Your task to perform on an android device: Empty the shopping cart on ebay. Image 0: 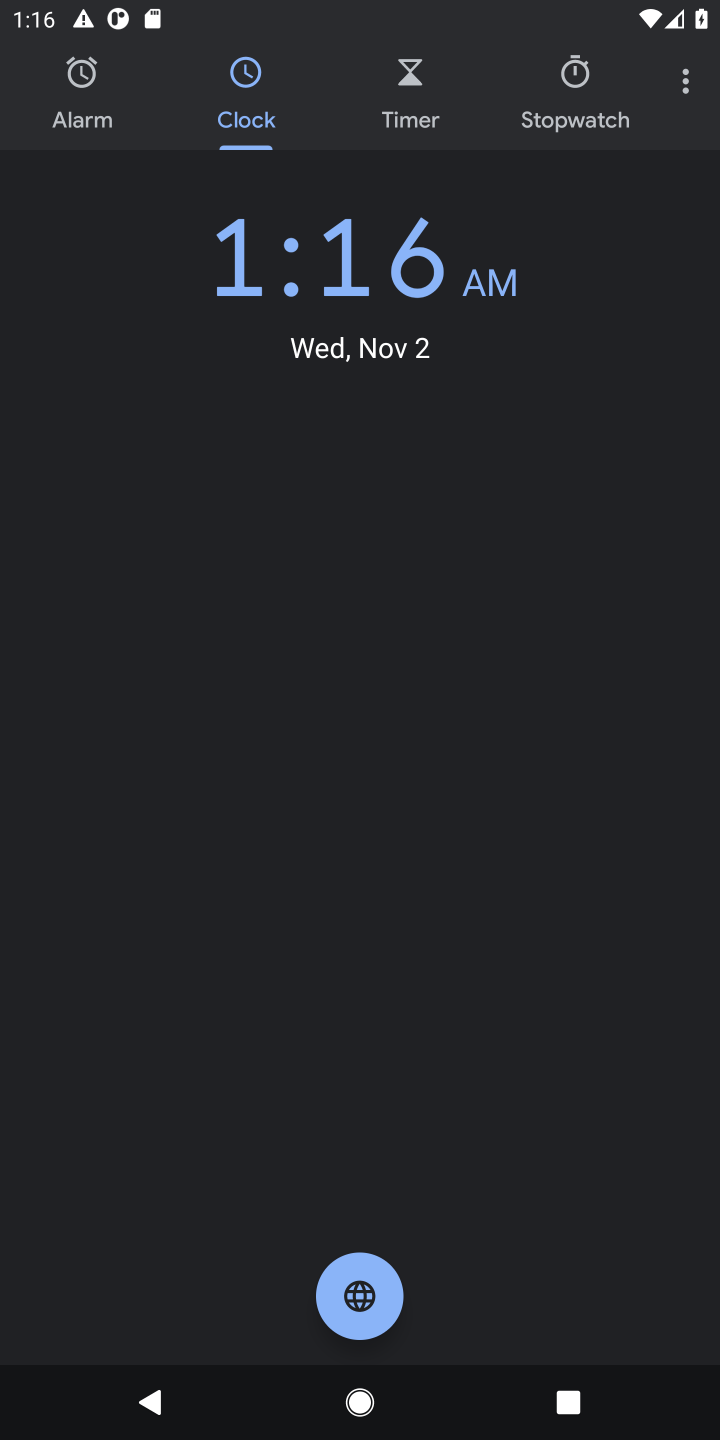
Step 0: press home button
Your task to perform on an android device: Empty the shopping cart on ebay. Image 1: 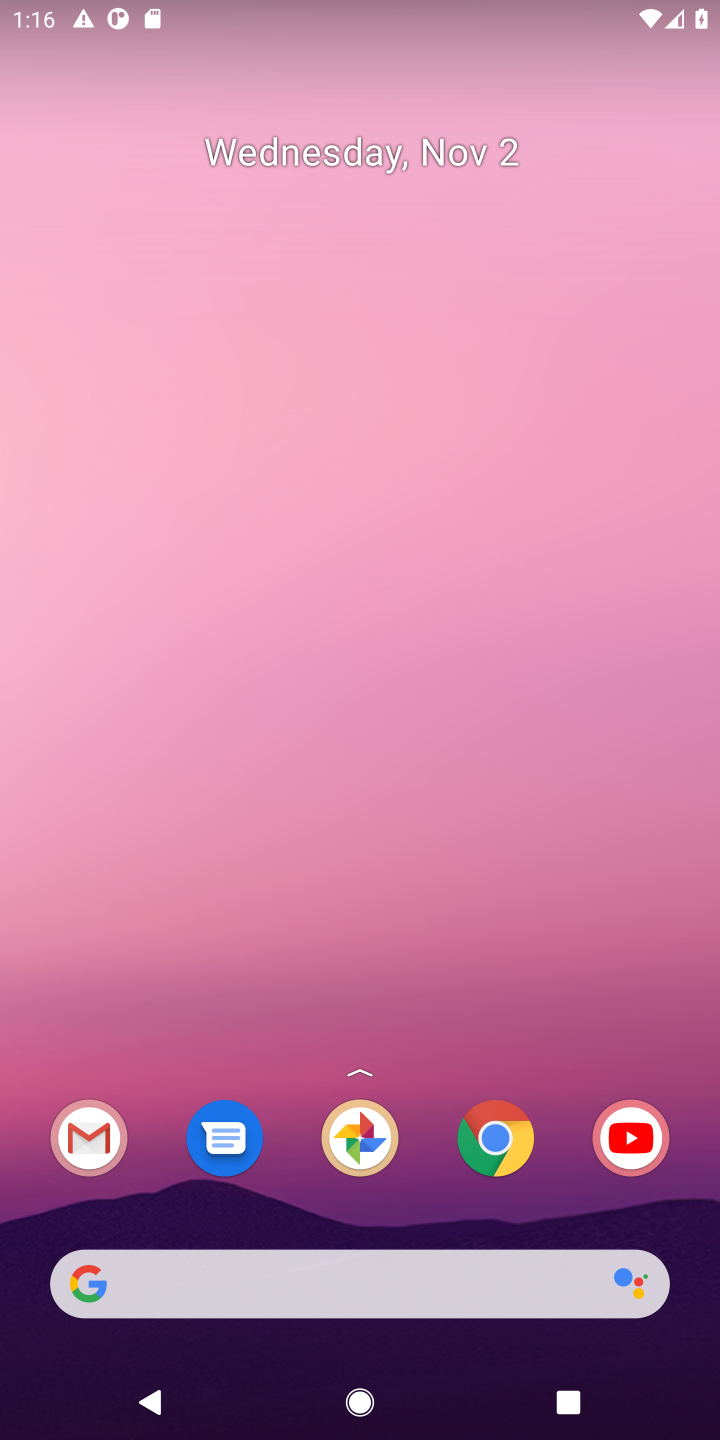
Step 1: click (481, 1119)
Your task to perform on an android device: Empty the shopping cart on ebay. Image 2: 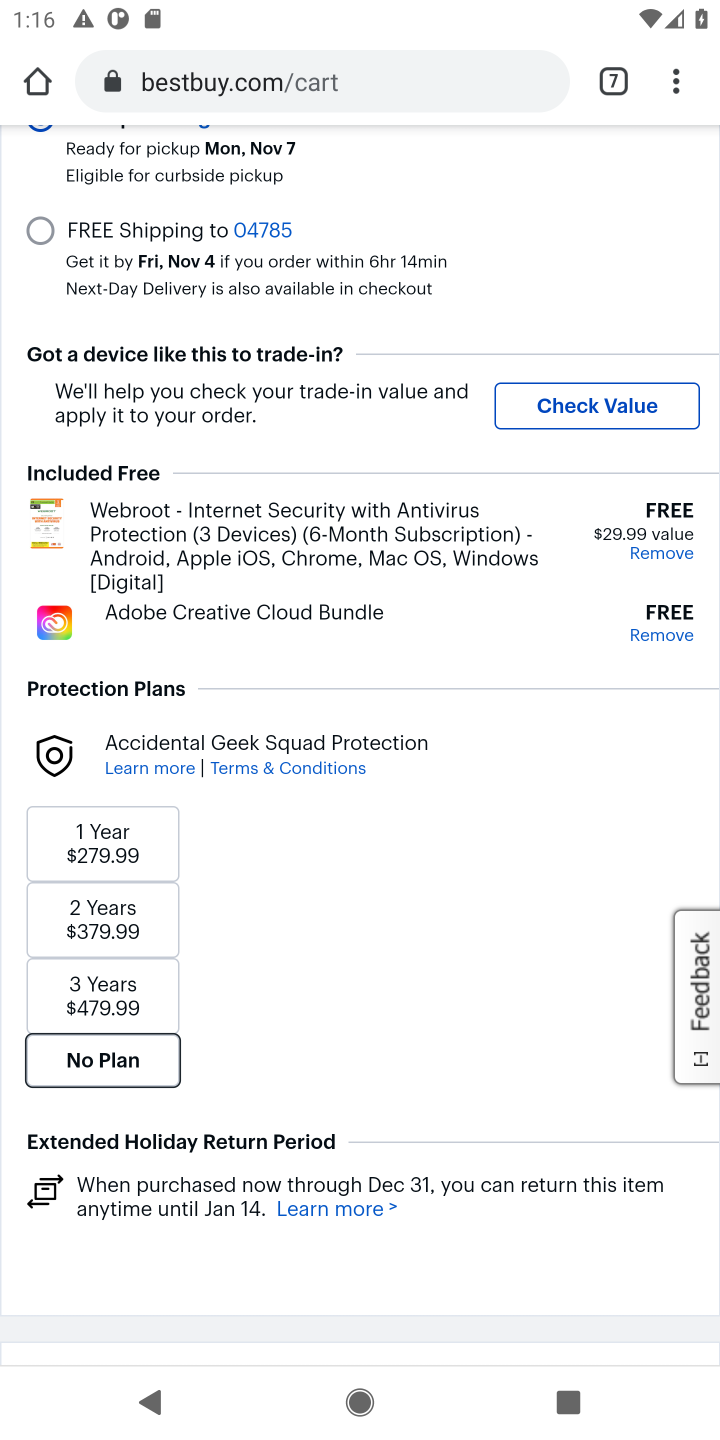
Step 2: click (610, 89)
Your task to perform on an android device: Empty the shopping cart on ebay. Image 3: 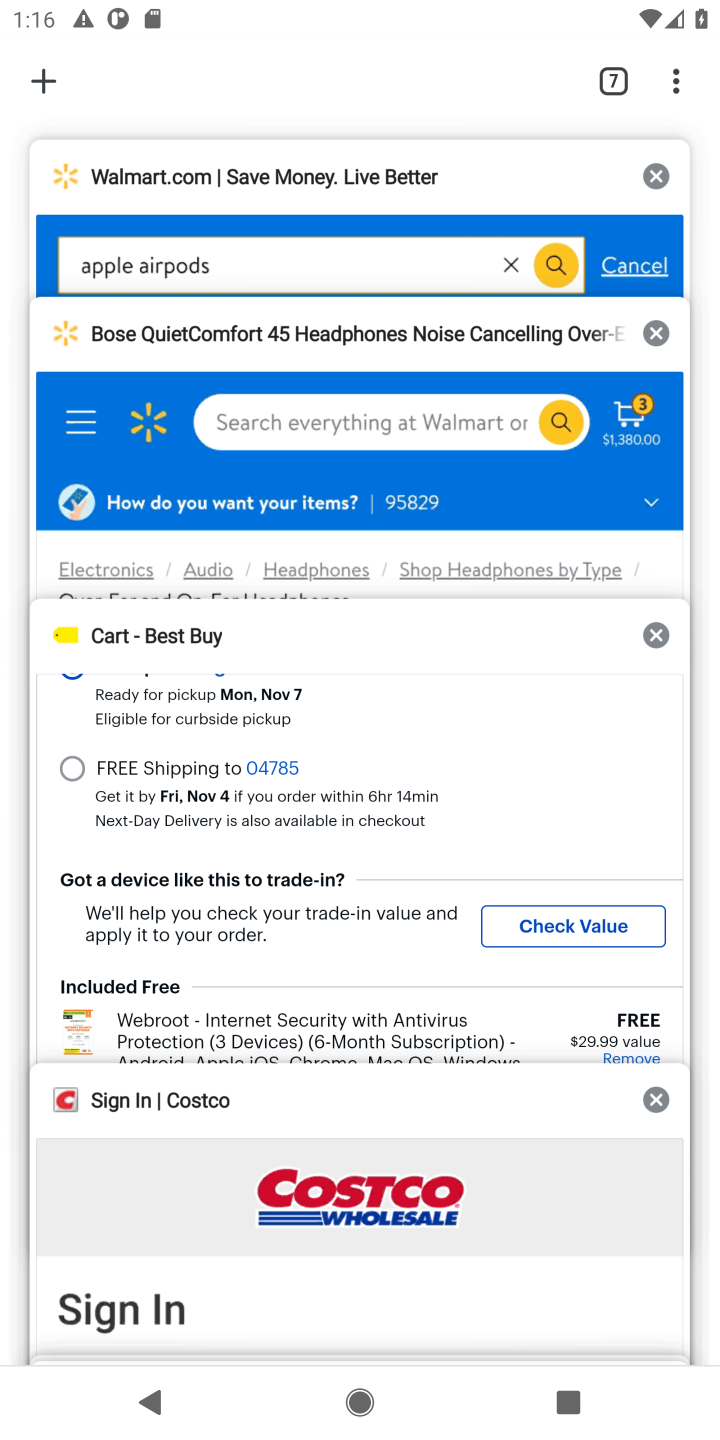
Step 3: drag from (263, 200) to (378, 563)
Your task to perform on an android device: Empty the shopping cart on ebay. Image 4: 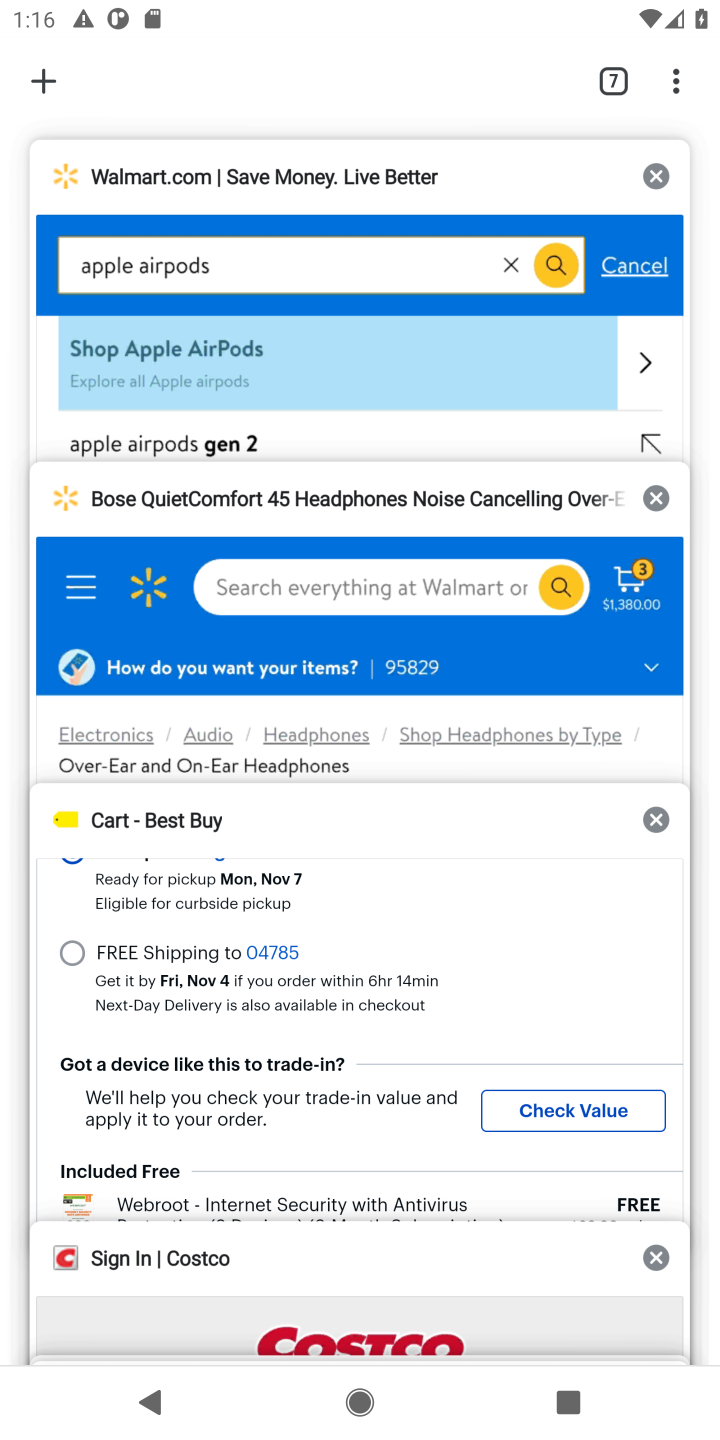
Step 4: click (651, 500)
Your task to perform on an android device: Empty the shopping cart on ebay. Image 5: 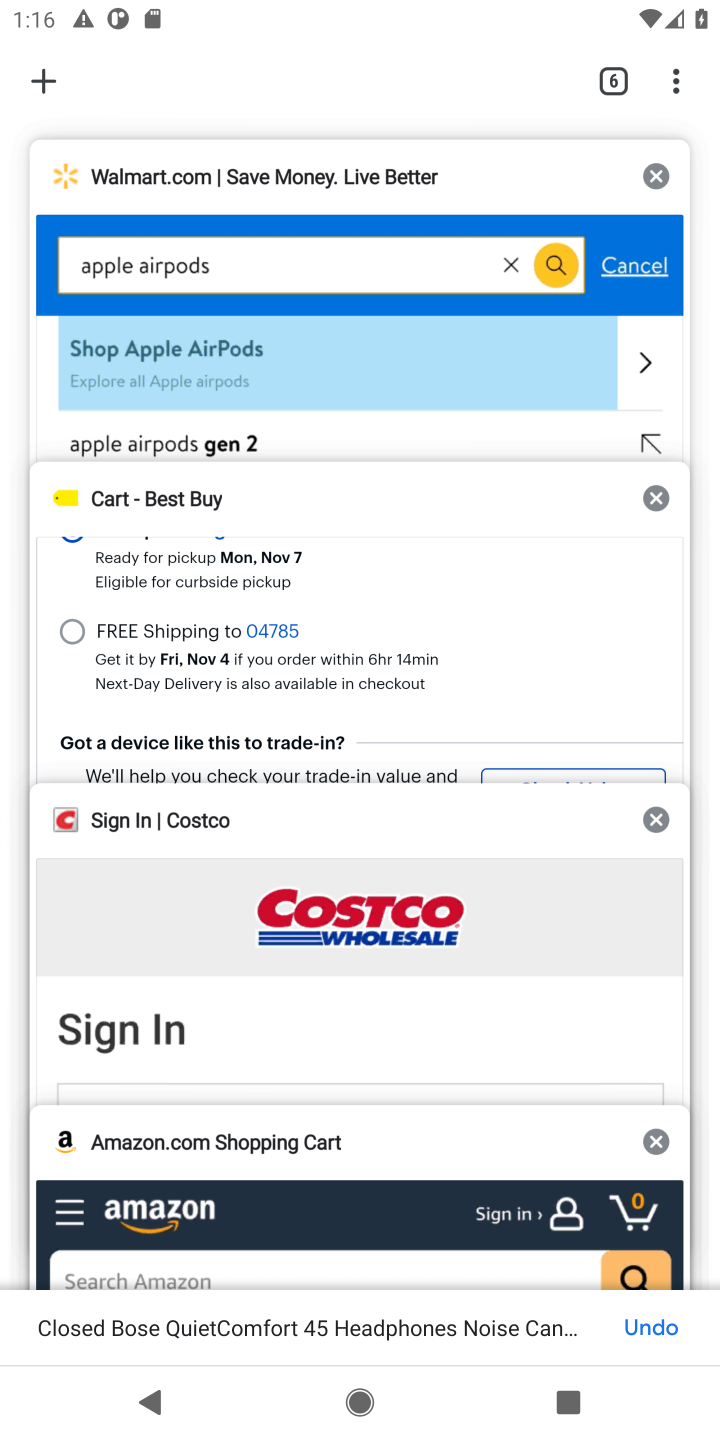
Step 5: drag from (310, 1272) to (305, 709)
Your task to perform on an android device: Empty the shopping cart on ebay. Image 6: 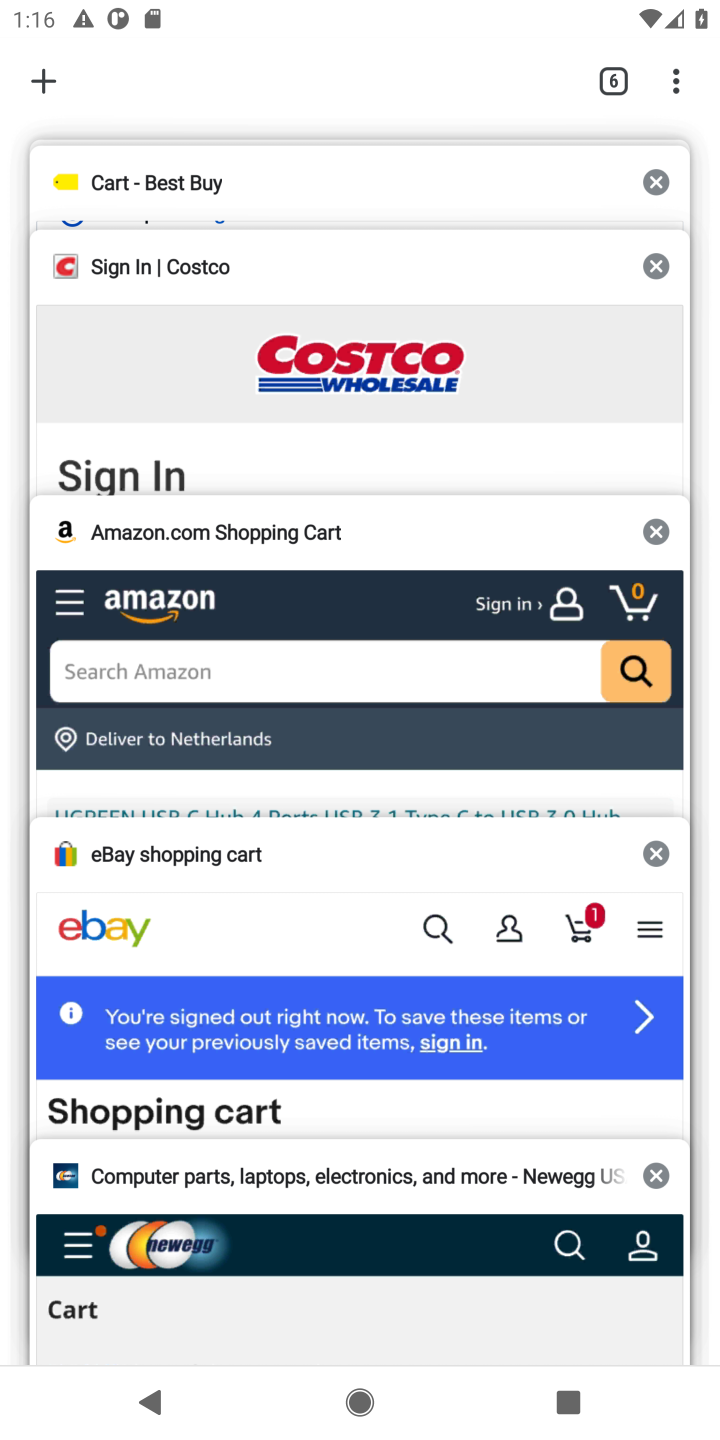
Step 6: click (322, 989)
Your task to perform on an android device: Empty the shopping cart on ebay. Image 7: 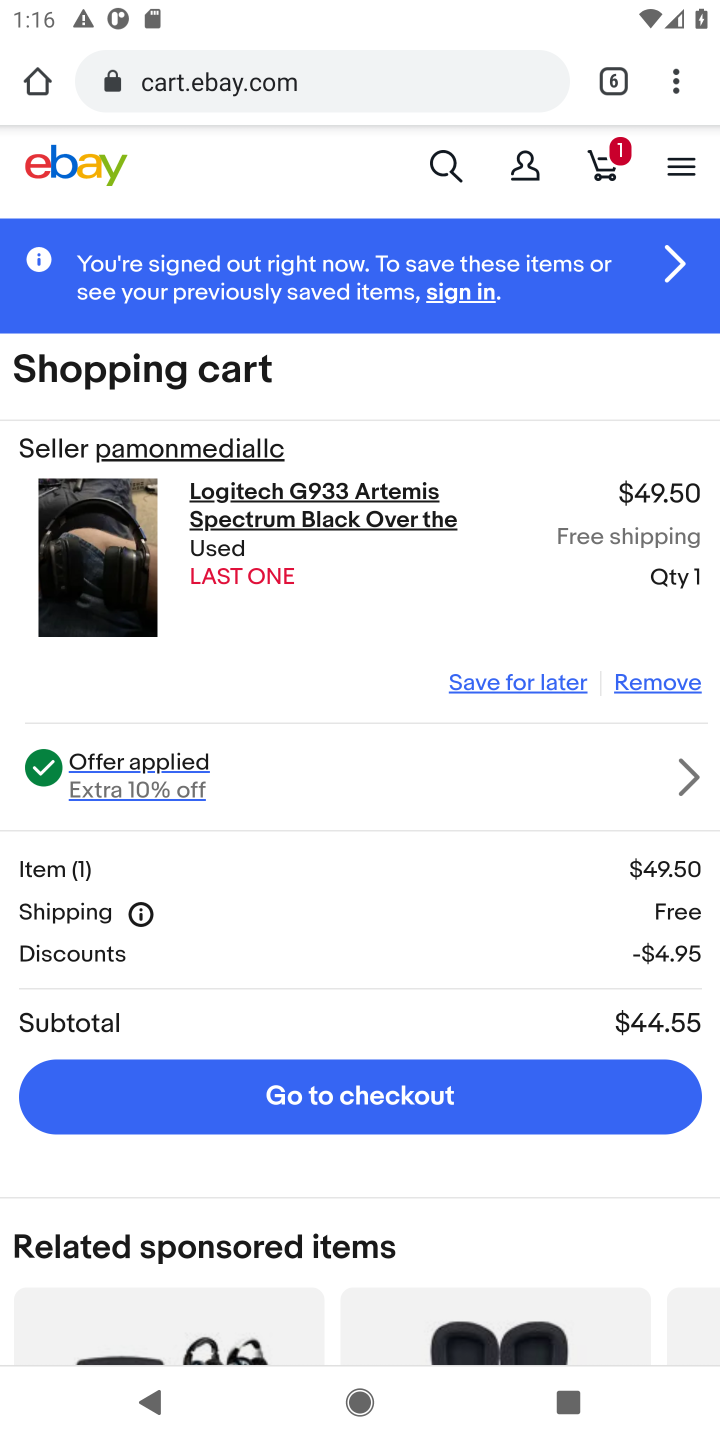
Step 7: click (629, 677)
Your task to perform on an android device: Empty the shopping cart on ebay. Image 8: 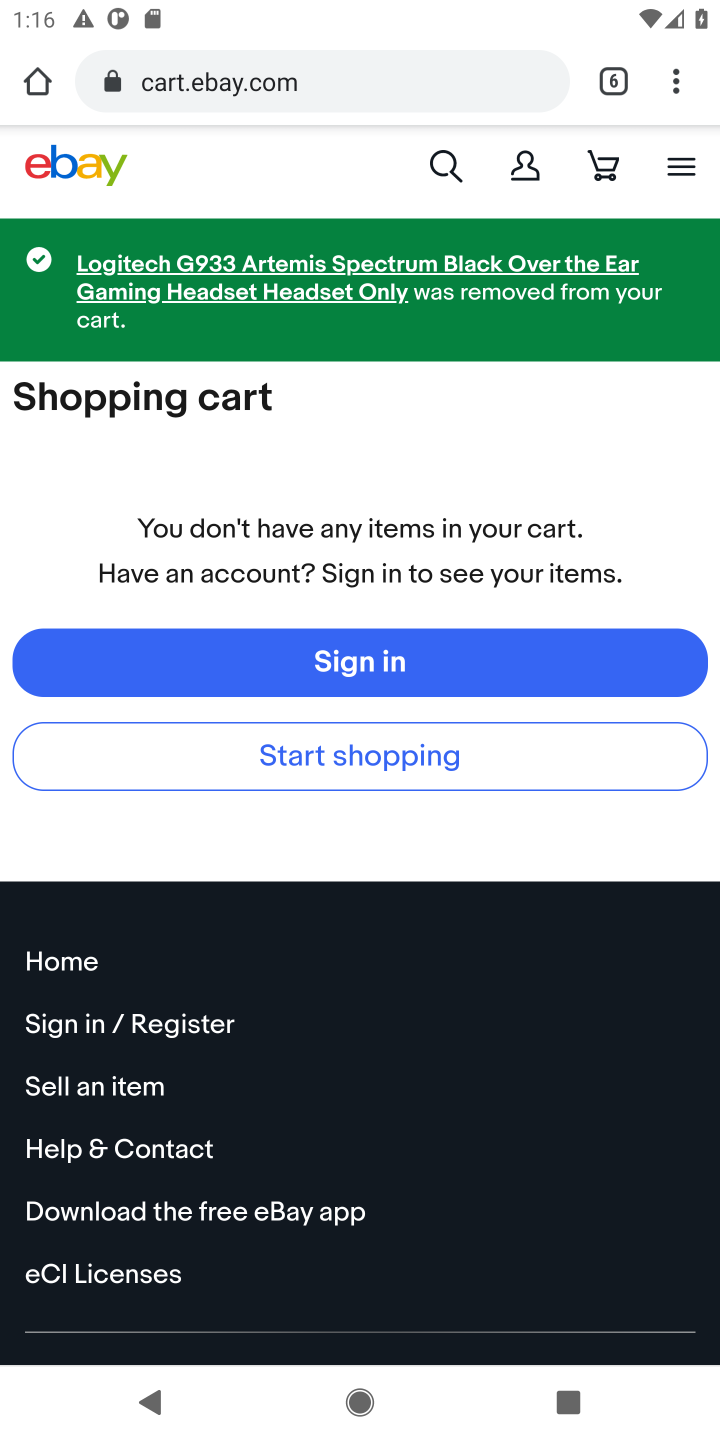
Step 8: task complete